Your task to perform on an android device: turn off improve location accuracy Image 0: 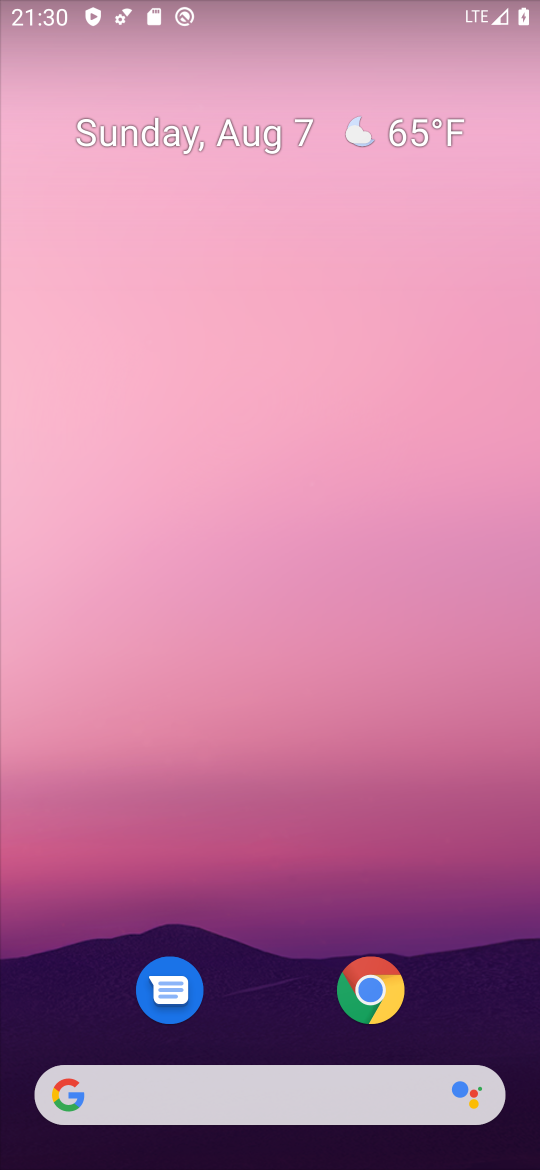
Step 0: drag from (295, 962) to (259, 79)
Your task to perform on an android device: turn off improve location accuracy Image 1: 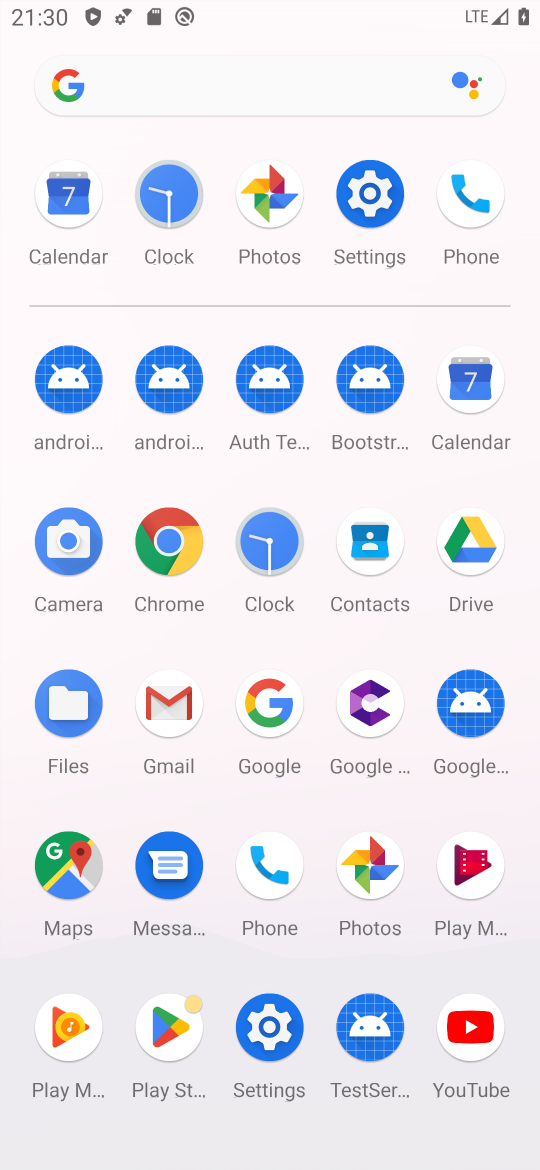
Step 1: click (371, 189)
Your task to perform on an android device: turn off improve location accuracy Image 2: 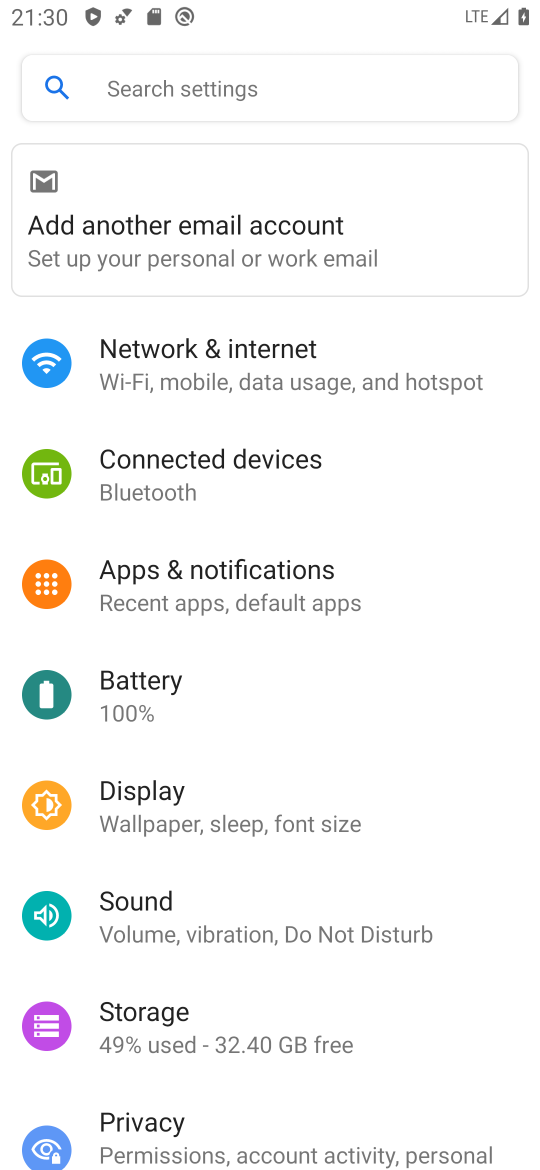
Step 2: drag from (244, 746) to (318, 91)
Your task to perform on an android device: turn off improve location accuracy Image 3: 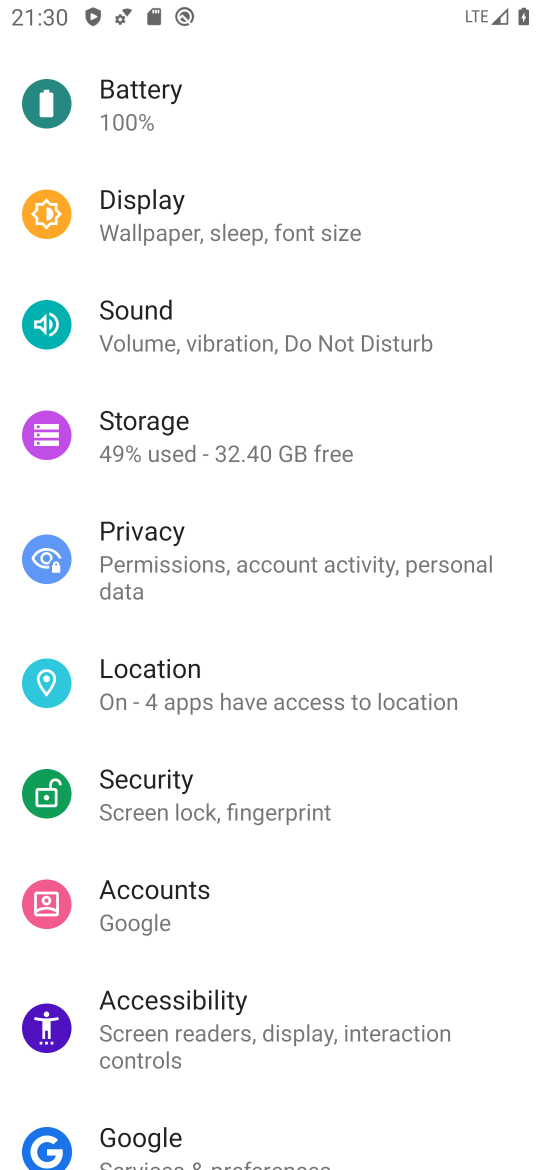
Step 3: click (239, 694)
Your task to perform on an android device: turn off improve location accuracy Image 4: 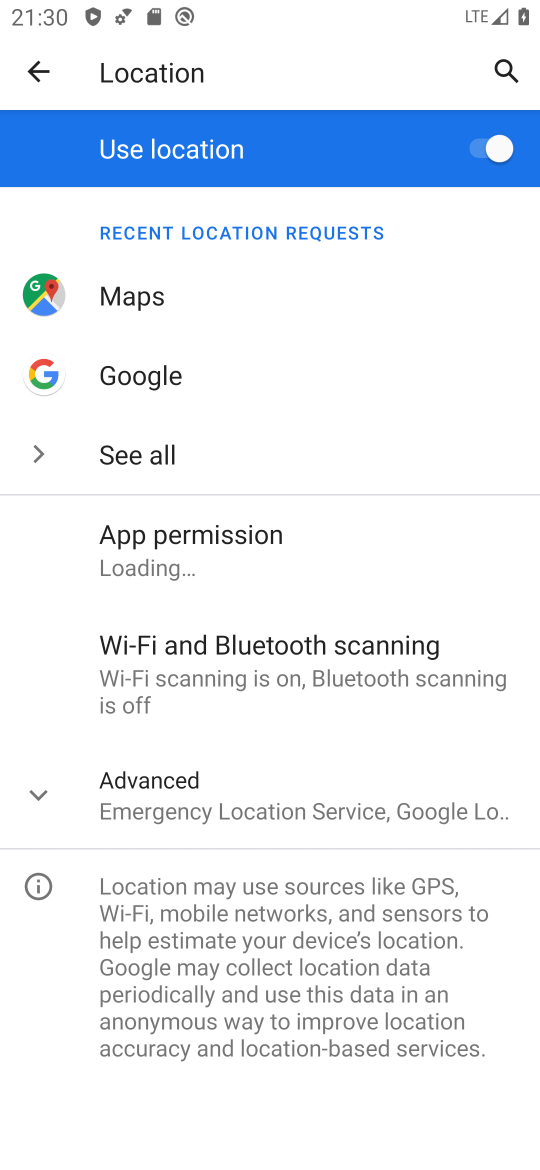
Step 4: click (38, 785)
Your task to perform on an android device: turn off improve location accuracy Image 5: 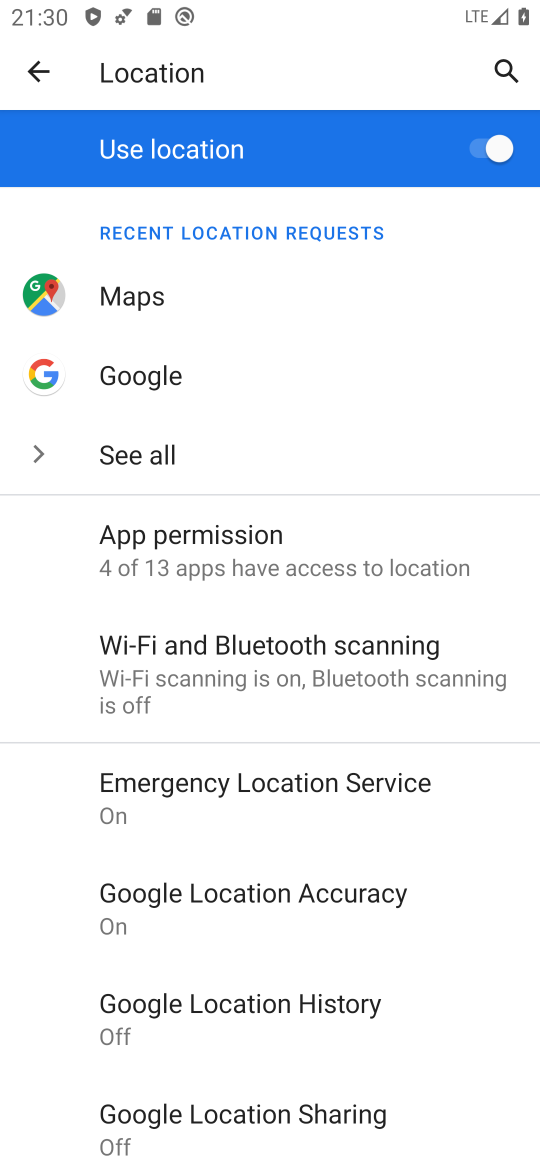
Step 5: click (207, 915)
Your task to perform on an android device: turn off improve location accuracy Image 6: 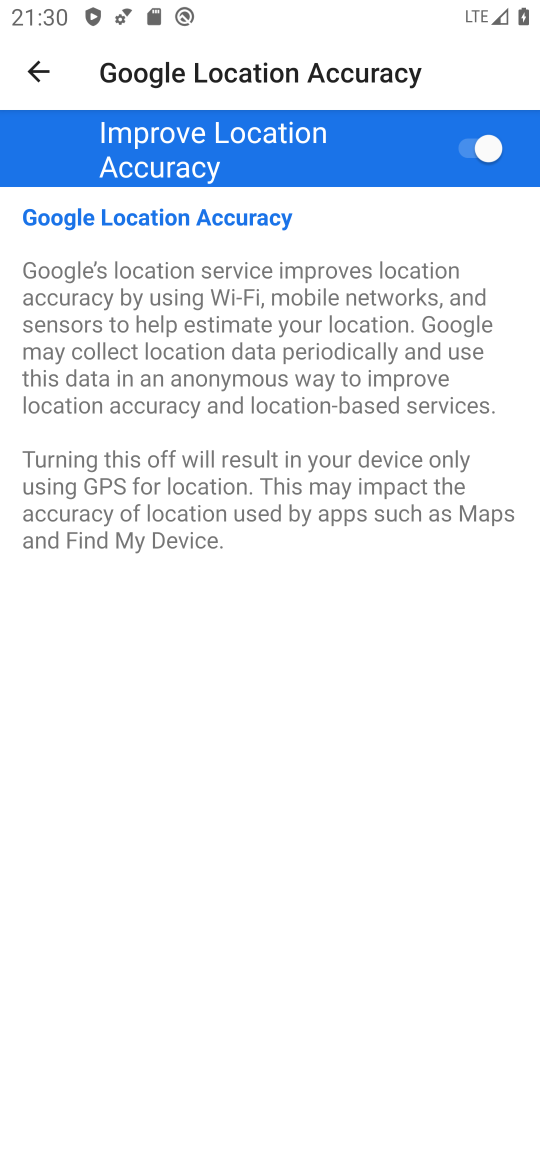
Step 6: click (476, 136)
Your task to perform on an android device: turn off improve location accuracy Image 7: 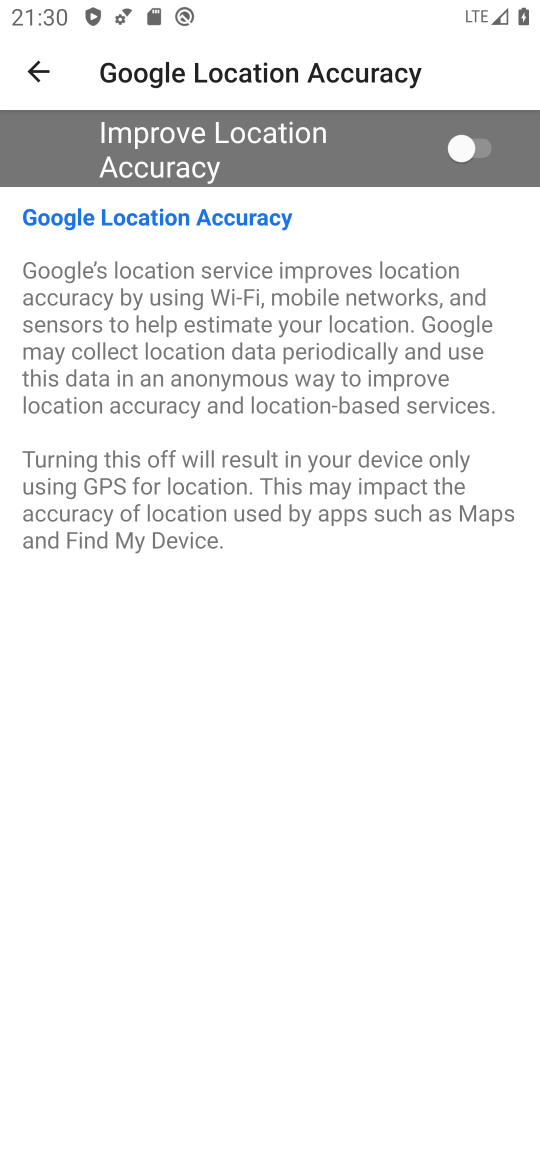
Step 7: task complete